Your task to perform on an android device: change notification settings in the gmail app Image 0: 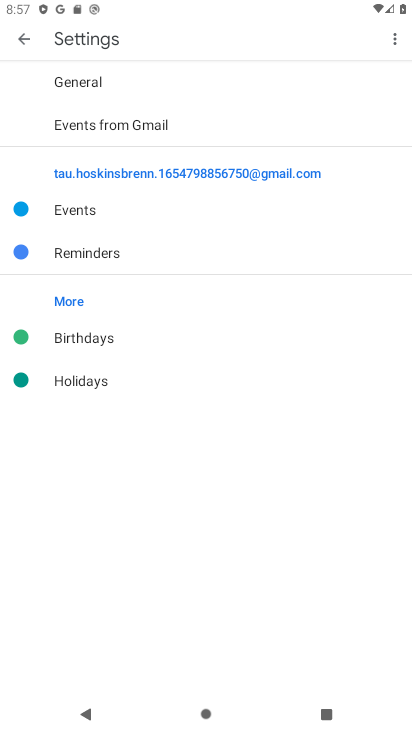
Step 0: click (26, 46)
Your task to perform on an android device: change notification settings in the gmail app Image 1: 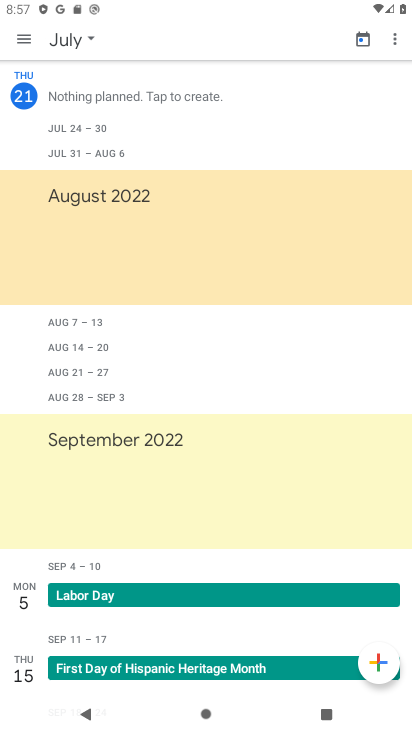
Step 1: press home button
Your task to perform on an android device: change notification settings in the gmail app Image 2: 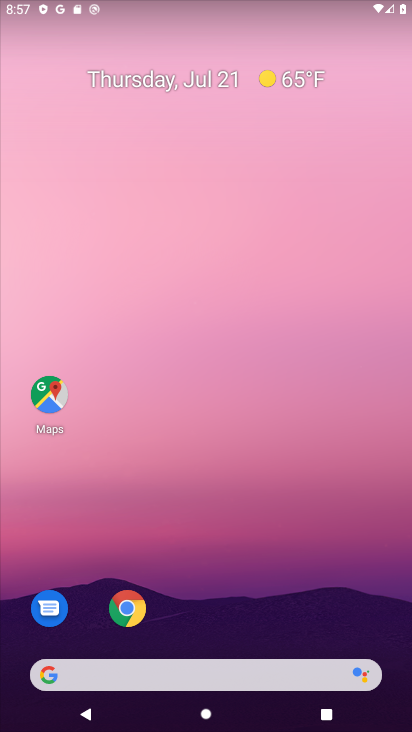
Step 2: drag from (260, 633) to (286, 533)
Your task to perform on an android device: change notification settings in the gmail app Image 3: 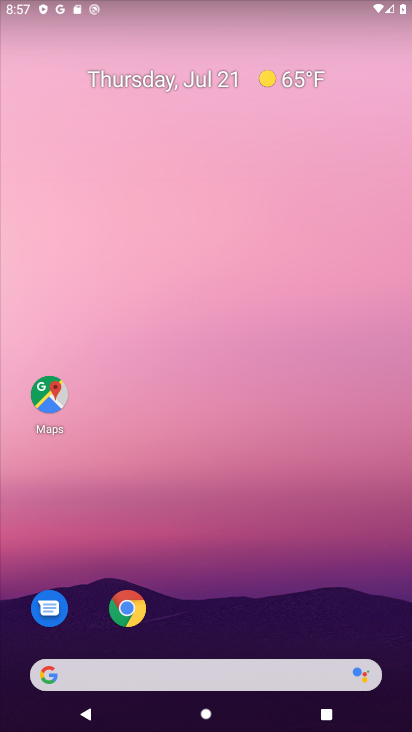
Step 3: drag from (232, 621) to (98, 129)
Your task to perform on an android device: change notification settings in the gmail app Image 4: 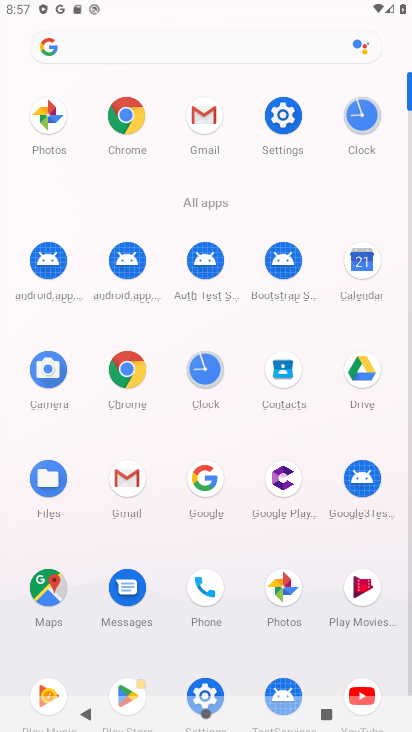
Step 4: click (199, 119)
Your task to perform on an android device: change notification settings in the gmail app Image 5: 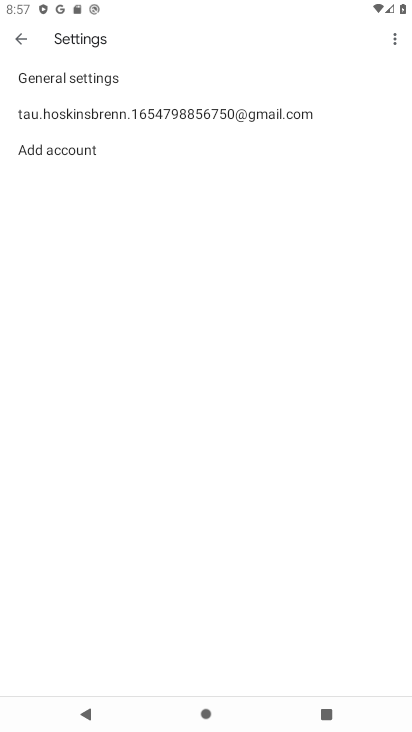
Step 5: click (20, 36)
Your task to perform on an android device: change notification settings in the gmail app Image 6: 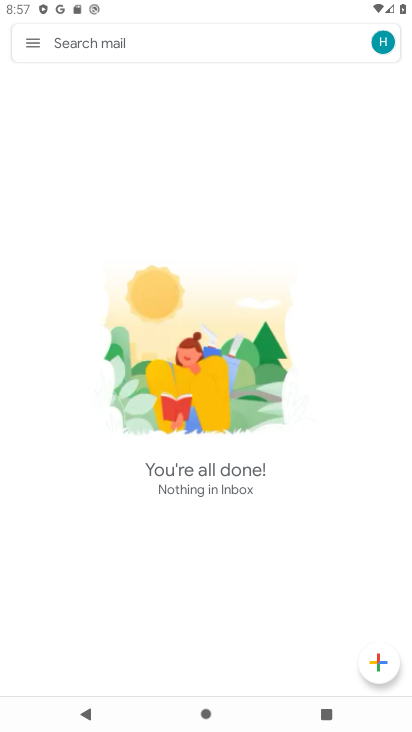
Step 6: click (35, 37)
Your task to perform on an android device: change notification settings in the gmail app Image 7: 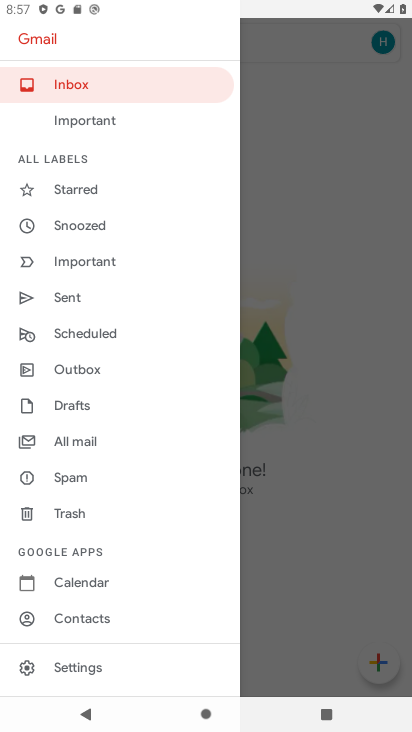
Step 7: click (91, 672)
Your task to perform on an android device: change notification settings in the gmail app Image 8: 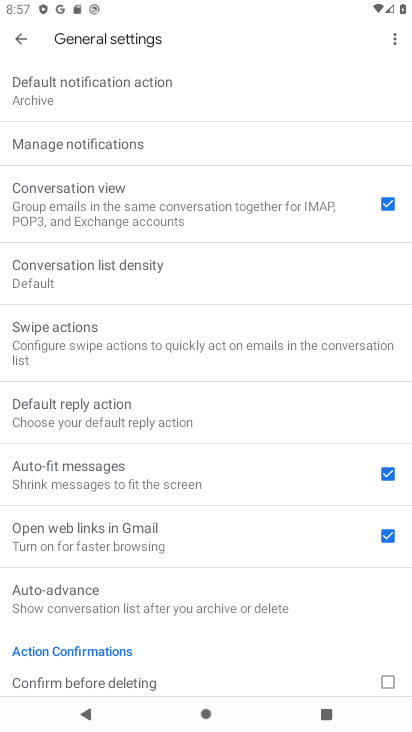
Step 8: task complete